Your task to perform on an android device: Open Yahoo.com Image 0: 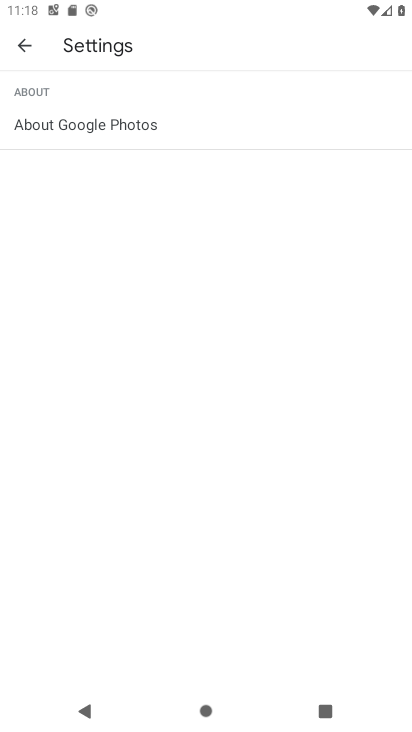
Step 0: press home button
Your task to perform on an android device: Open Yahoo.com Image 1: 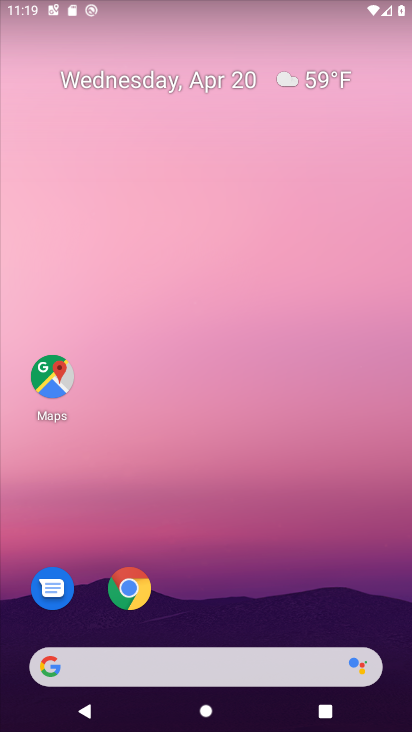
Step 1: click (127, 588)
Your task to perform on an android device: Open Yahoo.com Image 2: 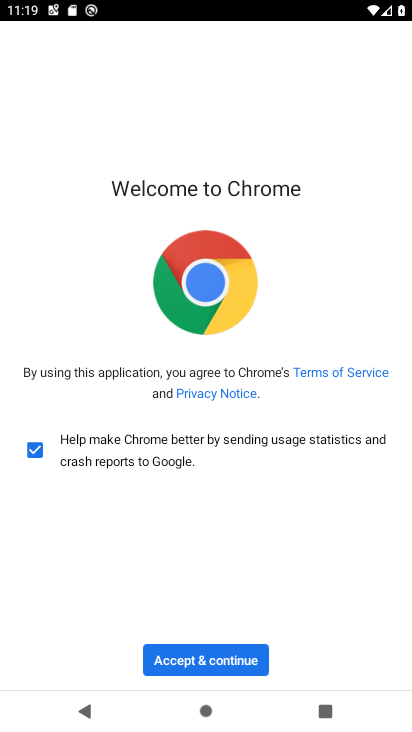
Step 2: click (207, 661)
Your task to perform on an android device: Open Yahoo.com Image 3: 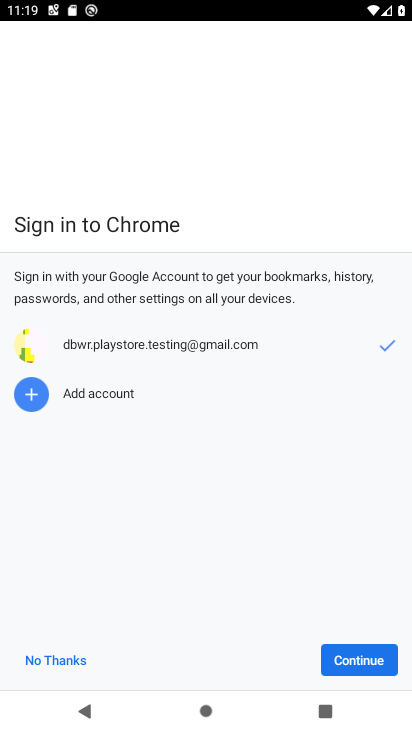
Step 3: click (387, 650)
Your task to perform on an android device: Open Yahoo.com Image 4: 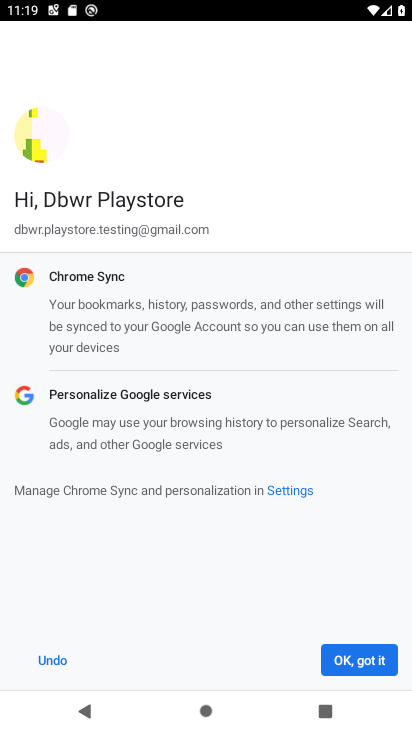
Step 4: click (387, 650)
Your task to perform on an android device: Open Yahoo.com Image 5: 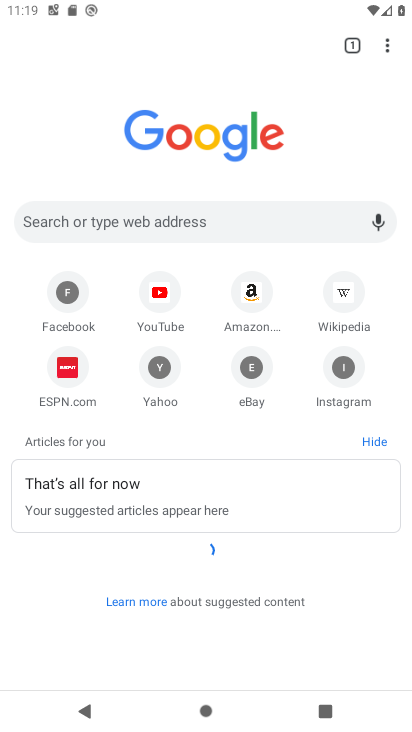
Step 5: click (170, 372)
Your task to perform on an android device: Open Yahoo.com Image 6: 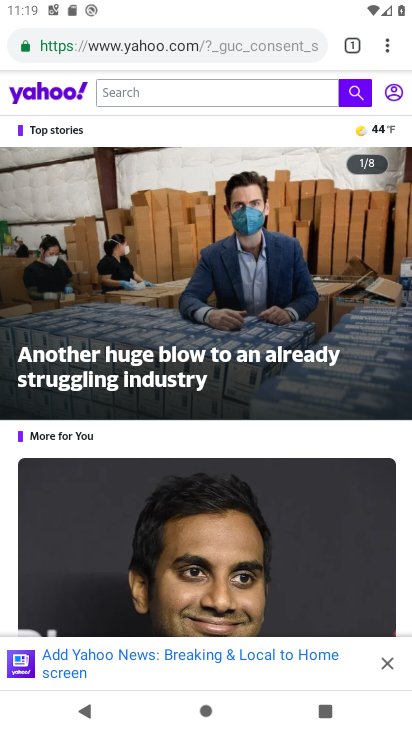
Step 6: task complete